Your task to perform on an android device: Go to network settings Image 0: 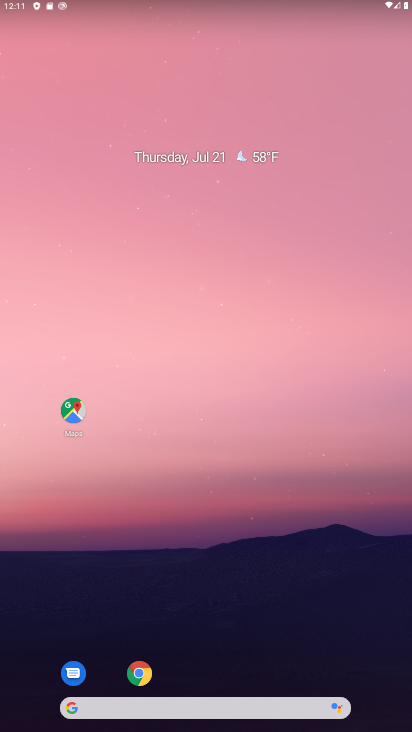
Step 0: click (249, 389)
Your task to perform on an android device: Go to network settings Image 1: 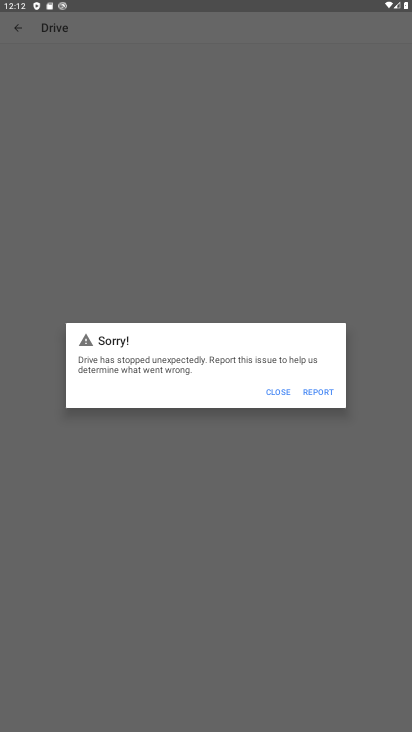
Step 1: press home button
Your task to perform on an android device: Go to network settings Image 2: 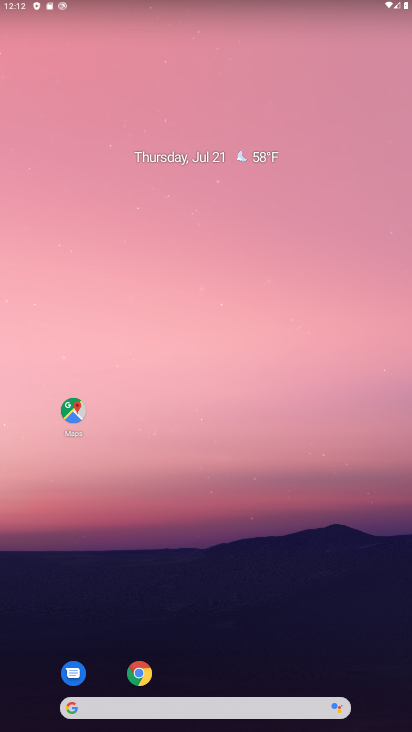
Step 2: drag from (209, 666) to (214, 89)
Your task to perform on an android device: Go to network settings Image 3: 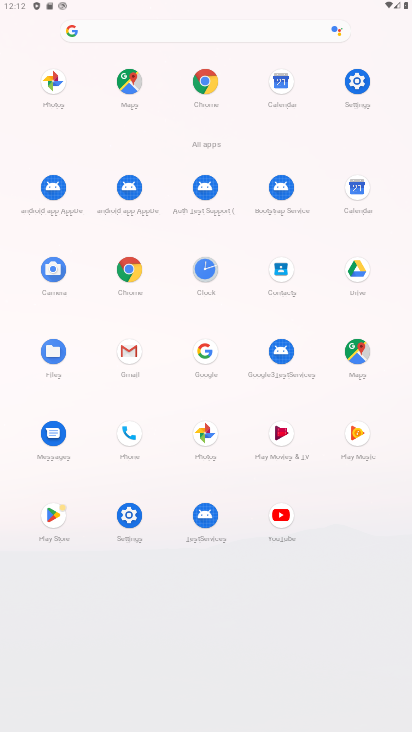
Step 3: click (362, 83)
Your task to perform on an android device: Go to network settings Image 4: 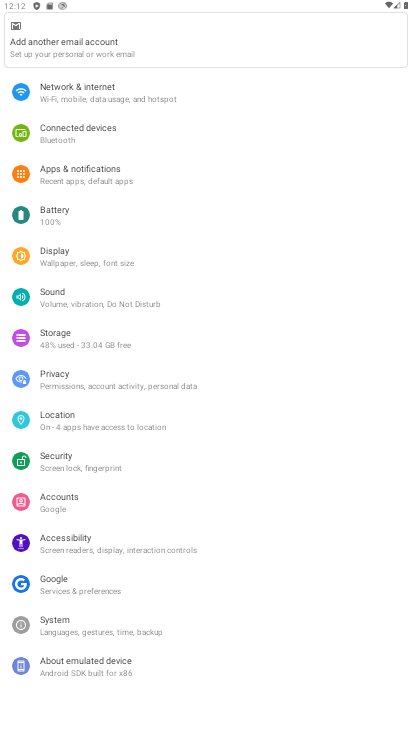
Step 4: click (105, 84)
Your task to perform on an android device: Go to network settings Image 5: 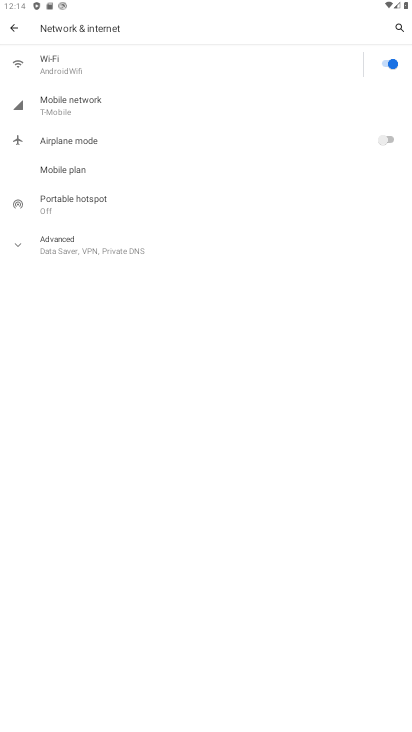
Step 5: task complete